Your task to perform on an android device: delete a single message in the gmail app Image 0: 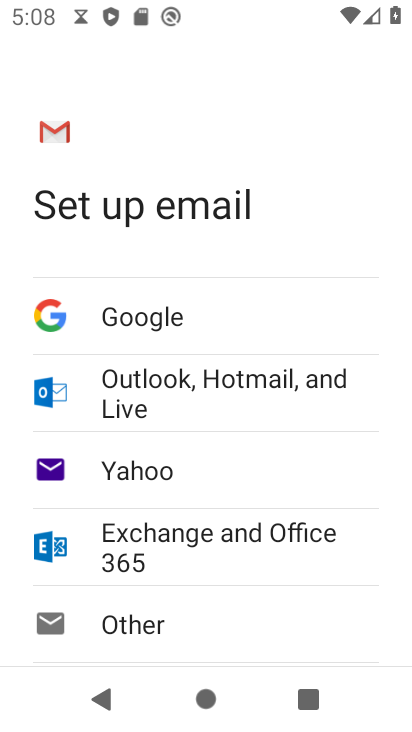
Step 0: press home button
Your task to perform on an android device: delete a single message in the gmail app Image 1: 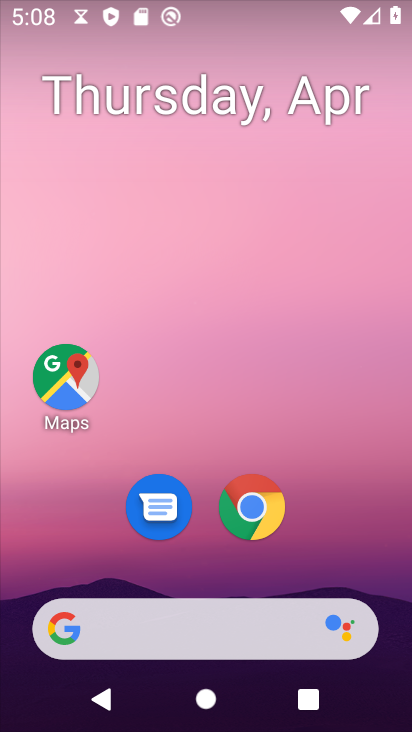
Step 1: drag from (320, 556) to (330, 279)
Your task to perform on an android device: delete a single message in the gmail app Image 2: 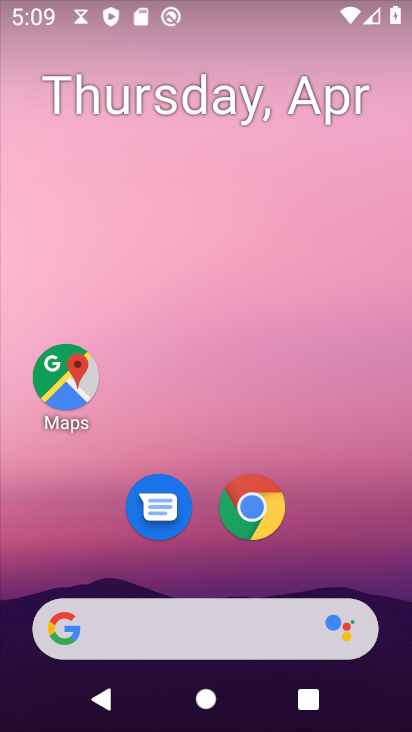
Step 2: drag from (351, 467) to (328, 229)
Your task to perform on an android device: delete a single message in the gmail app Image 3: 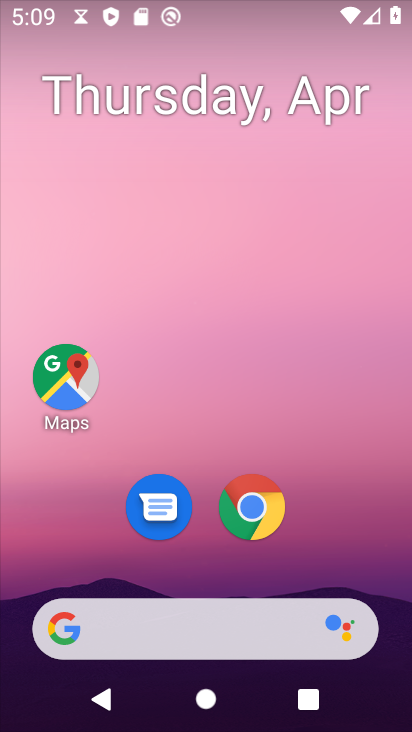
Step 3: drag from (311, 508) to (279, 147)
Your task to perform on an android device: delete a single message in the gmail app Image 4: 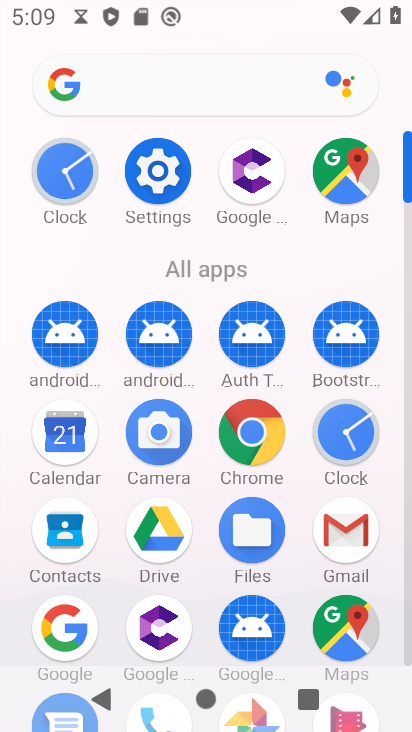
Step 4: click (332, 538)
Your task to perform on an android device: delete a single message in the gmail app Image 5: 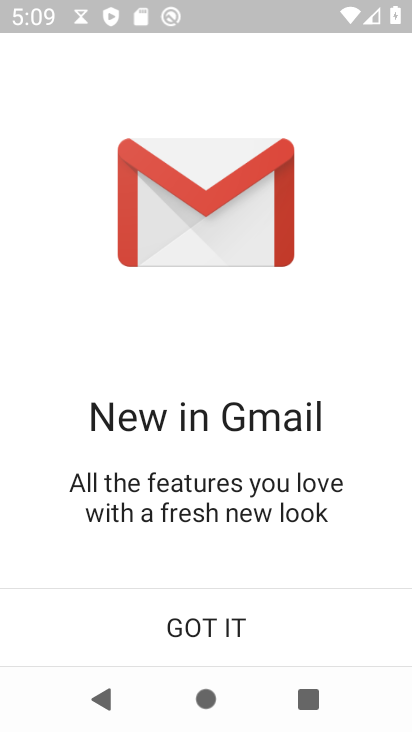
Step 5: click (259, 614)
Your task to perform on an android device: delete a single message in the gmail app Image 6: 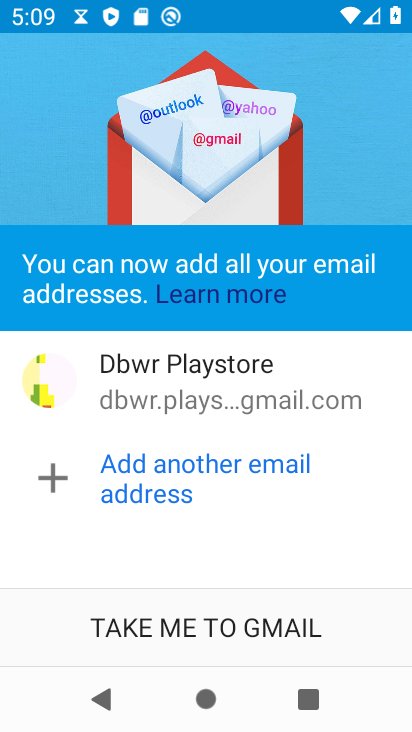
Step 6: click (224, 622)
Your task to perform on an android device: delete a single message in the gmail app Image 7: 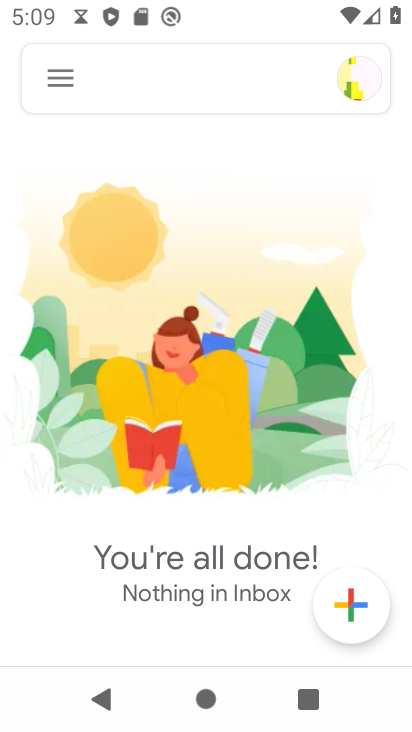
Step 7: click (65, 66)
Your task to perform on an android device: delete a single message in the gmail app Image 8: 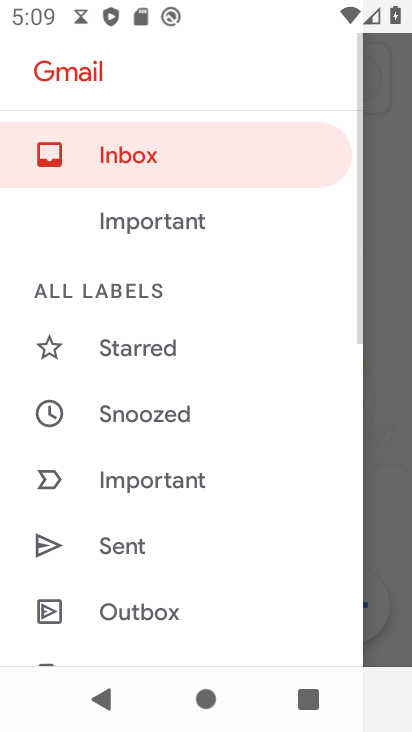
Step 8: drag from (165, 542) to (224, 201)
Your task to perform on an android device: delete a single message in the gmail app Image 9: 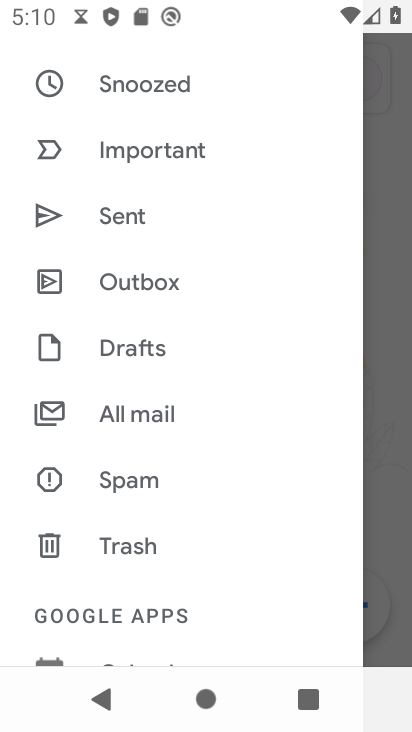
Step 9: drag from (177, 526) to (229, 280)
Your task to perform on an android device: delete a single message in the gmail app Image 10: 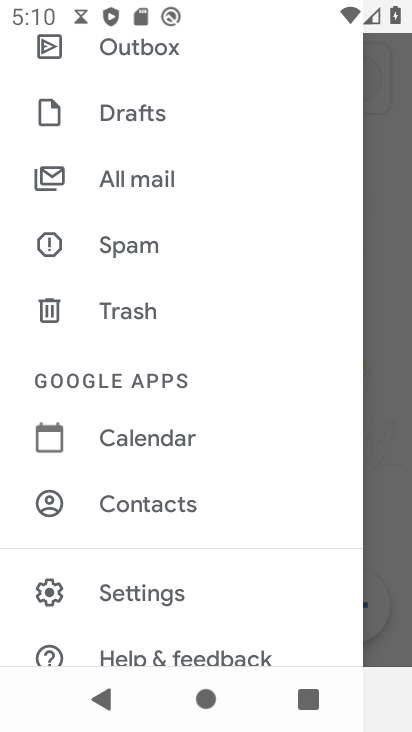
Step 10: click (145, 187)
Your task to perform on an android device: delete a single message in the gmail app Image 11: 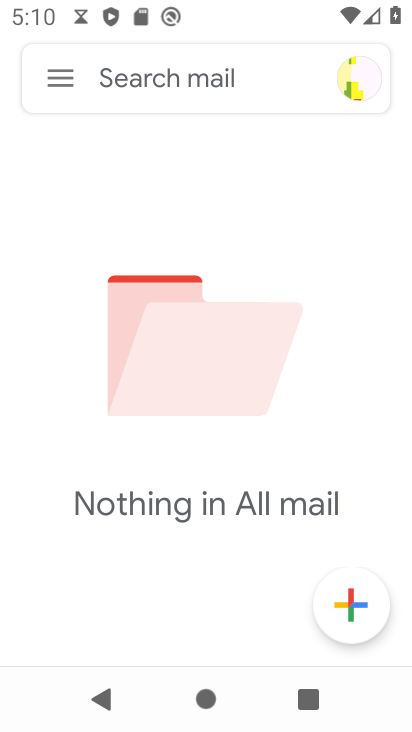
Step 11: task complete